Your task to perform on an android device: Go to display settings Image 0: 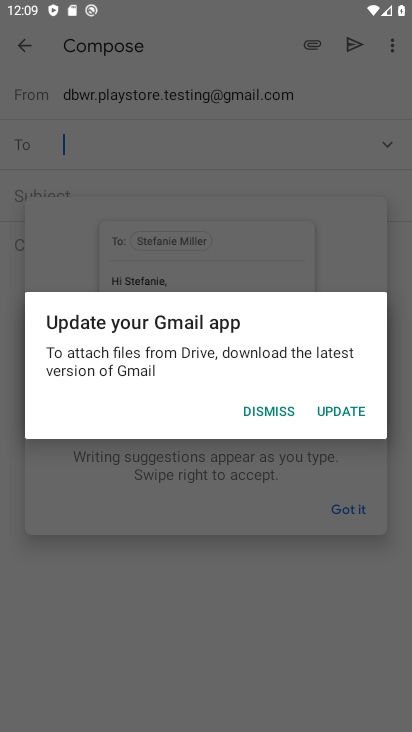
Step 0: press home button
Your task to perform on an android device: Go to display settings Image 1: 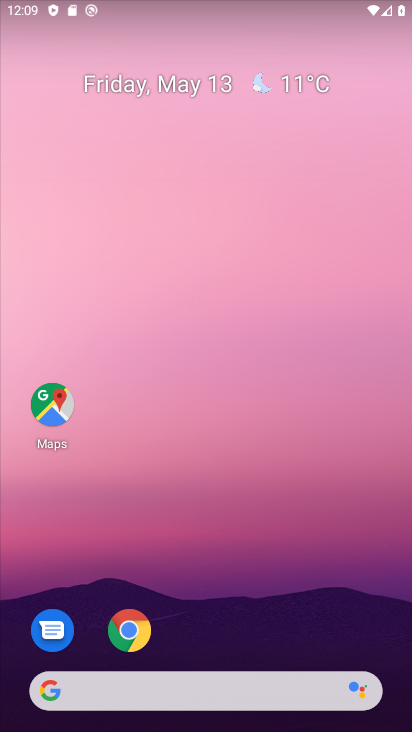
Step 1: drag from (102, 498) to (266, 136)
Your task to perform on an android device: Go to display settings Image 2: 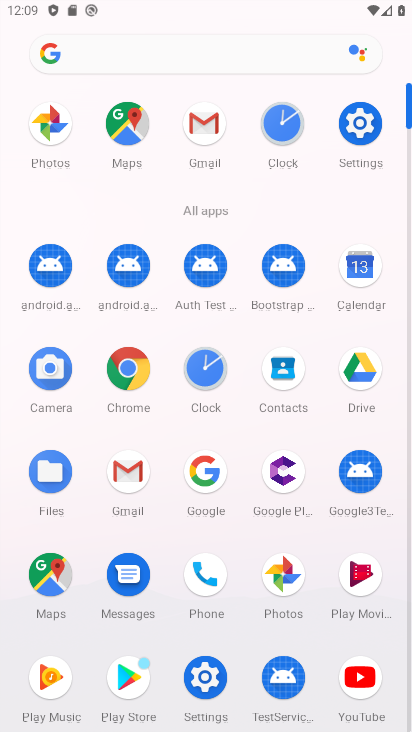
Step 2: click (360, 126)
Your task to perform on an android device: Go to display settings Image 3: 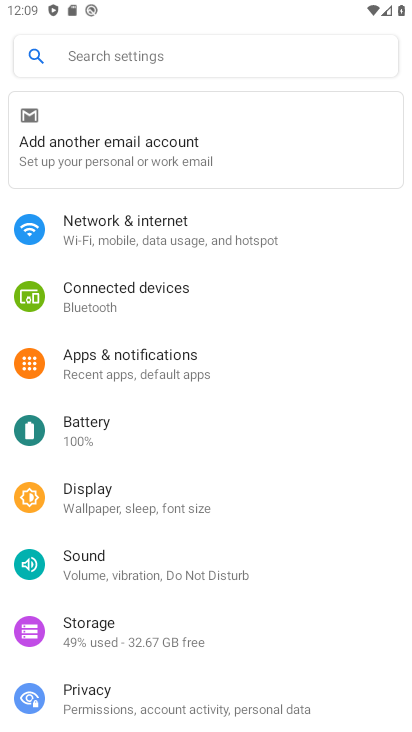
Step 3: drag from (72, 643) to (256, 205)
Your task to perform on an android device: Go to display settings Image 4: 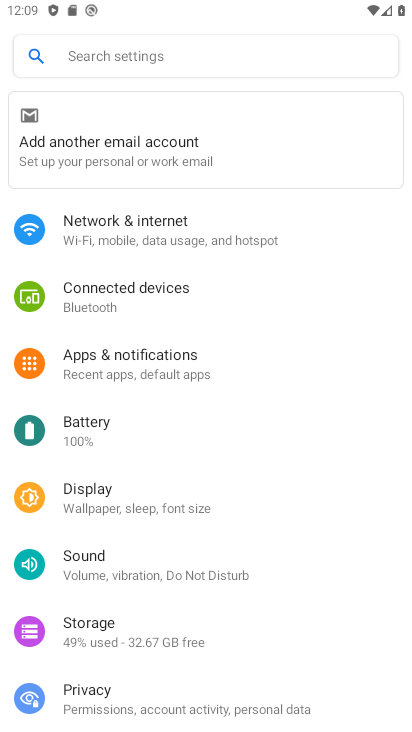
Step 4: drag from (11, 686) to (274, 218)
Your task to perform on an android device: Go to display settings Image 5: 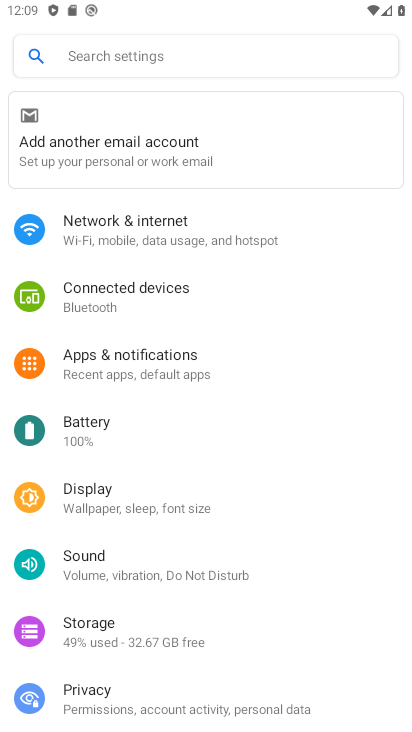
Step 5: click (130, 484)
Your task to perform on an android device: Go to display settings Image 6: 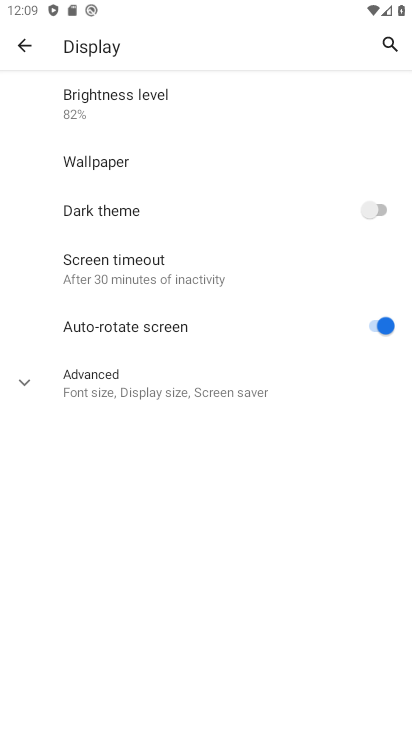
Step 6: task complete